Your task to perform on an android device: turn on javascript in the chrome app Image 0: 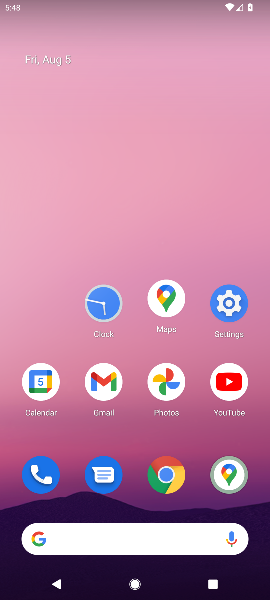
Step 0: click (161, 484)
Your task to perform on an android device: turn on javascript in the chrome app Image 1: 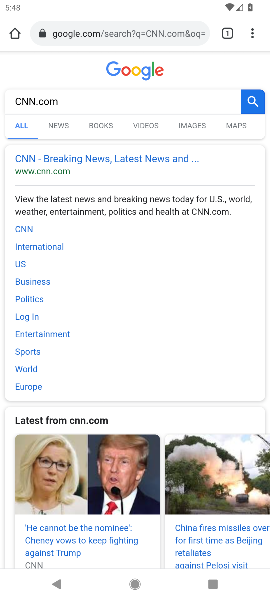
Step 1: click (251, 32)
Your task to perform on an android device: turn on javascript in the chrome app Image 2: 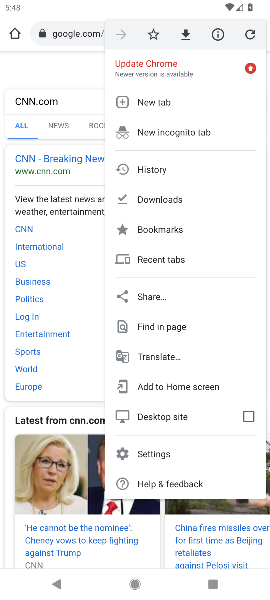
Step 2: click (167, 453)
Your task to perform on an android device: turn on javascript in the chrome app Image 3: 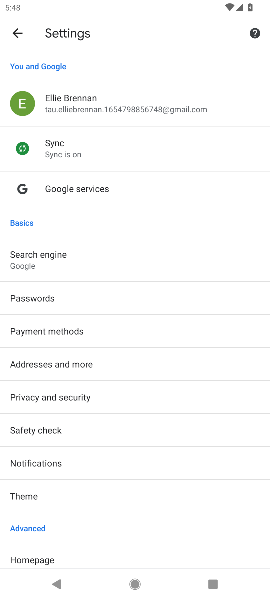
Step 3: drag from (171, 525) to (190, 281)
Your task to perform on an android device: turn on javascript in the chrome app Image 4: 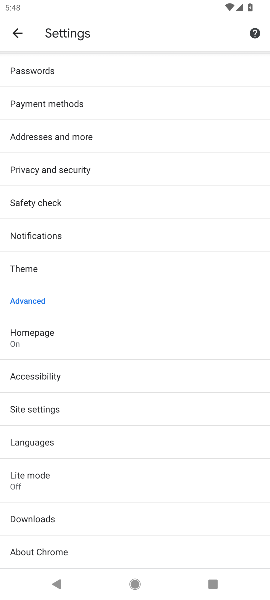
Step 4: click (51, 406)
Your task to perform on an android device: turn on javascript in the chrome app Image 5: 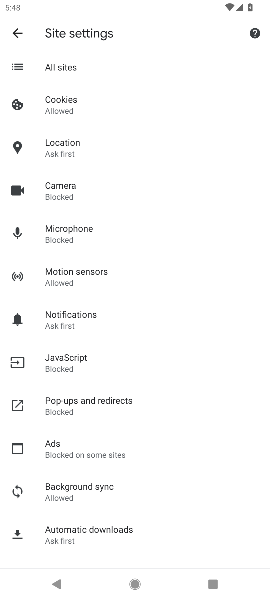
Step 5: click (79, 354)
Your task to perform on an android device: turn on javascript in the chrome app Image 6: 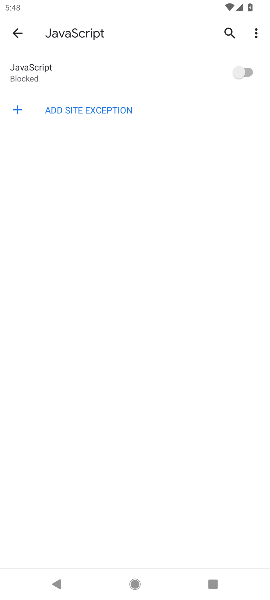
Step 6: click (249, 71)
Your task to perform on an android device: turn on javascript in the chrome app Image 7: 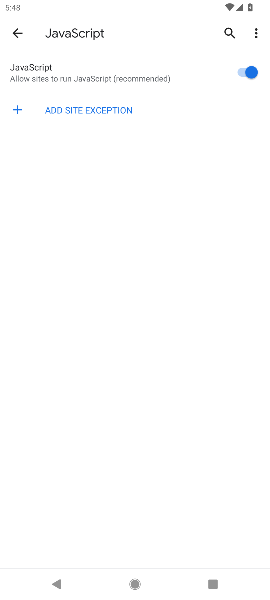
Step 7: task complete